Your task to perform on an android device: turn vacation reply on in the gmail app Image 0: 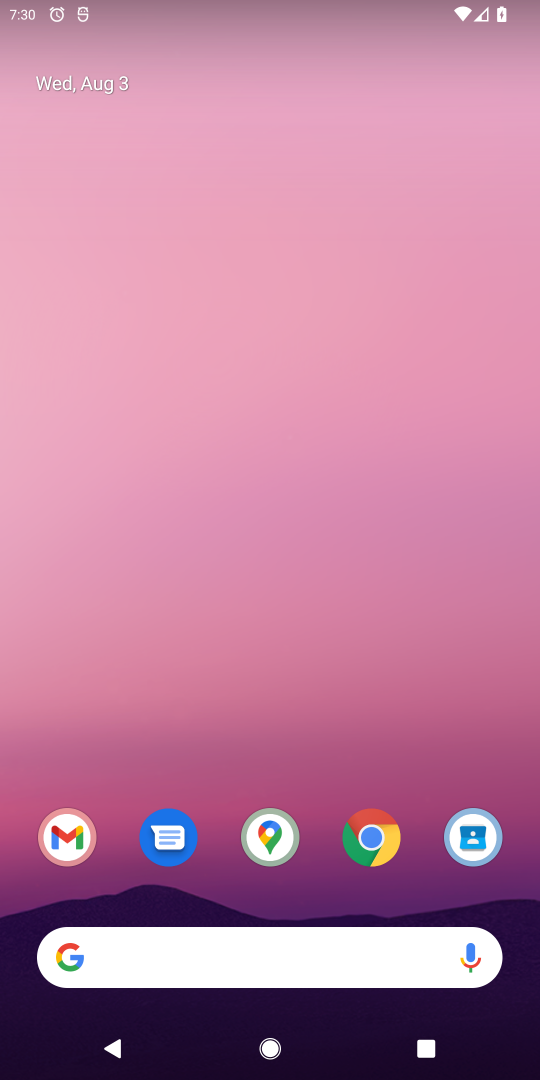
Step 0: press home button
Your task to perform on an android device: turn vacation reply on in the gmail app Image 1: 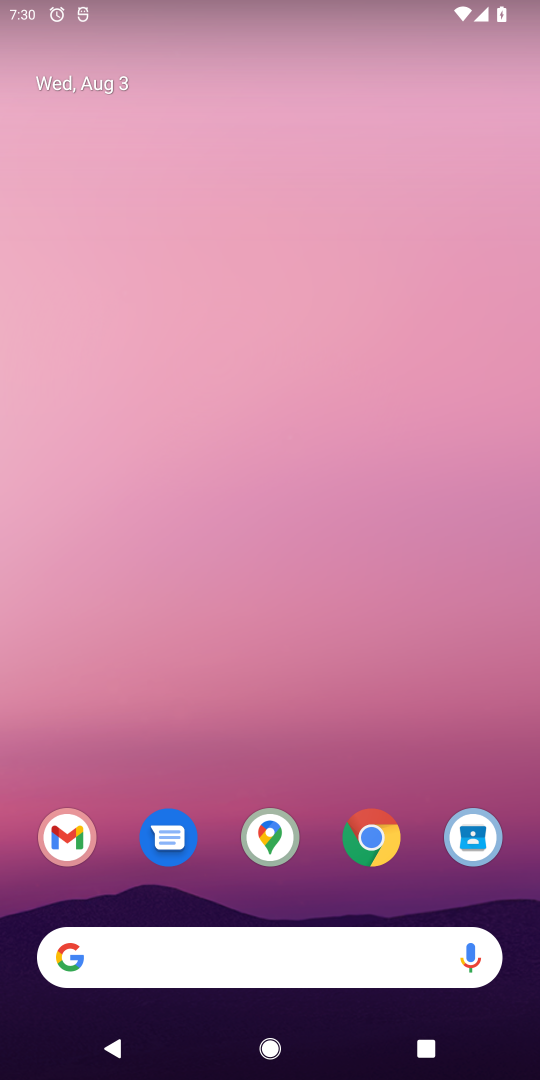
Step 1: click (68, 842)
Your task to perform on an android device: turn vacation reply on in the gmail app Image 2: 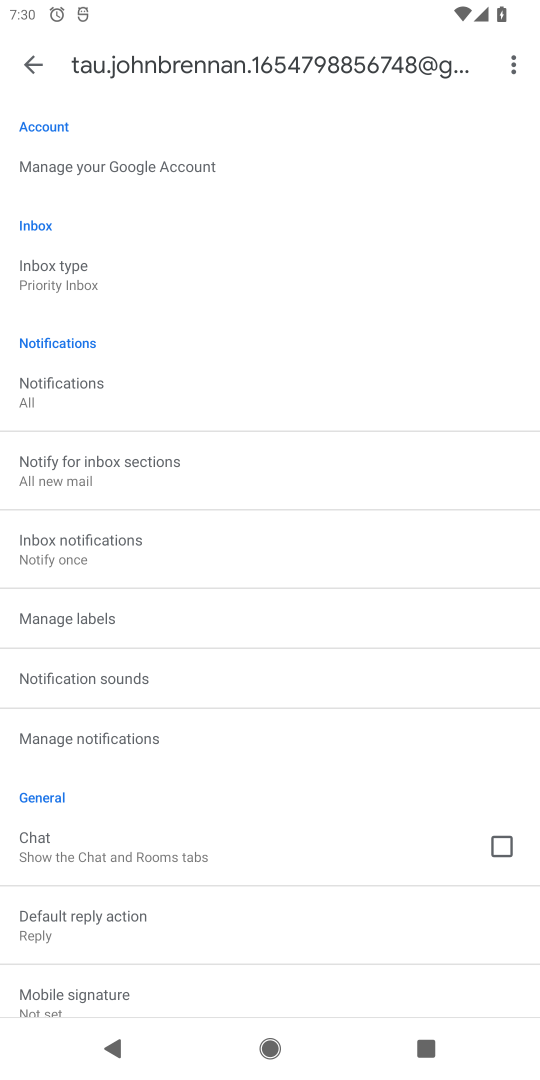
Step 2: drag from (313, 920) to (439, 241)
Your task to perform on an android device: turn vacation reply on in the gmail app Image 3: 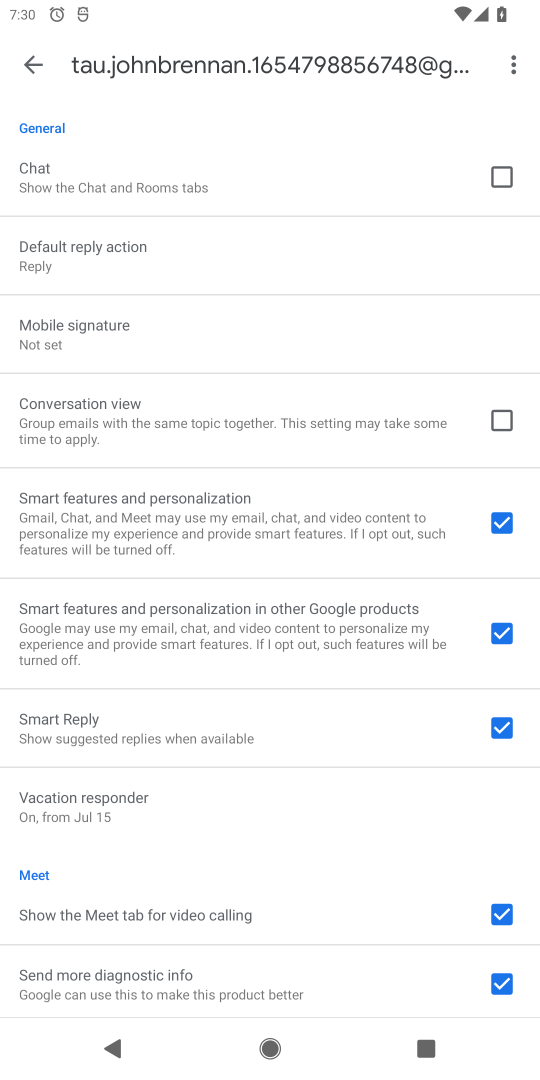
Step 3: click (78, 808)
Your task to perform on an android device: turn vacation reply on in the gmail app Image 4: 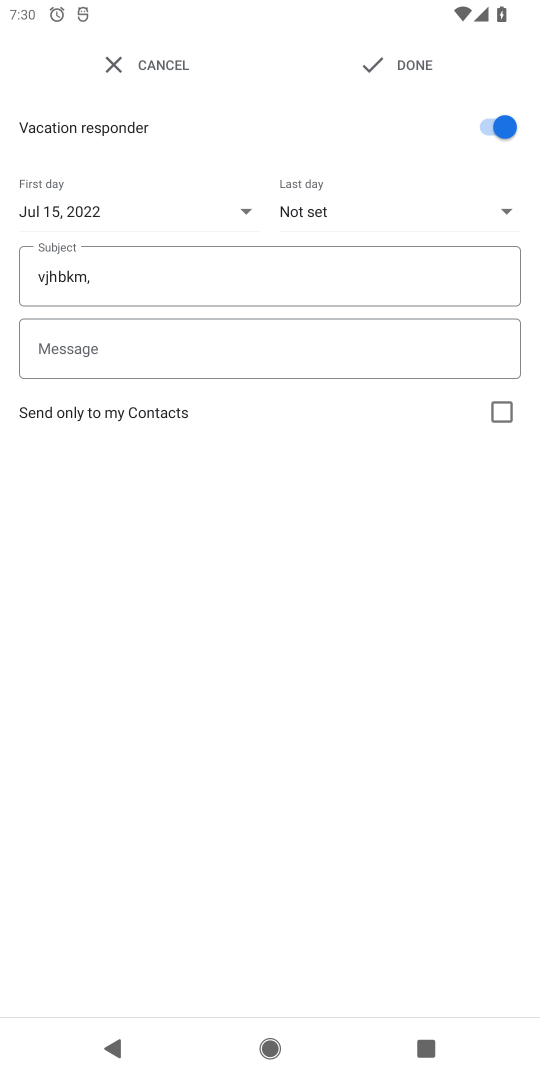
Step 4: task complete